Your task to perform on an android device: Go to Google Image 0: 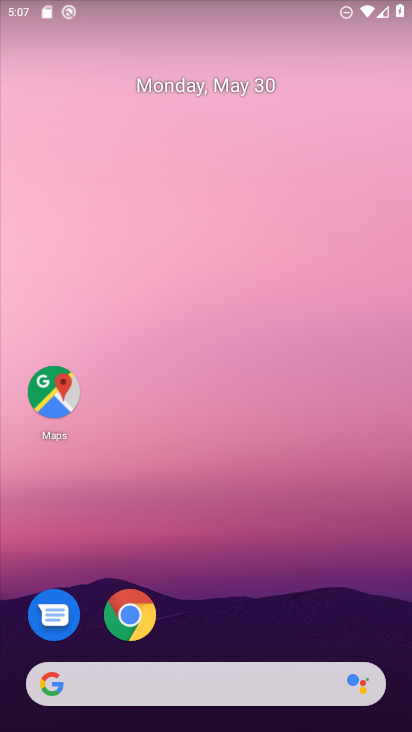
Step 0: click (169, 691)
Your task to perform on an android device: Go to Google Image 1: 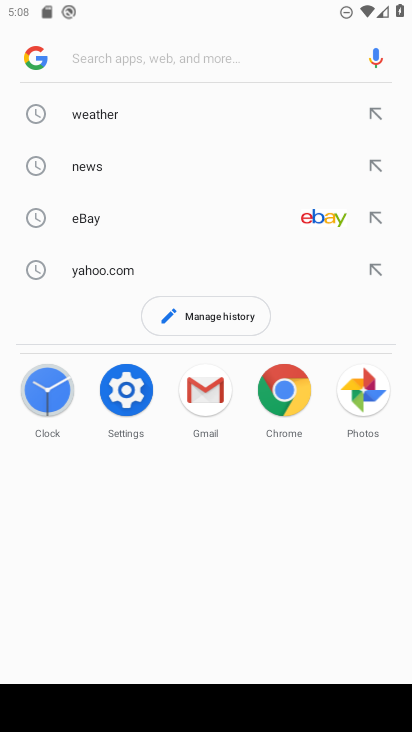
Step 1: task complete